Your task to perform on an android device: open chrome privacy settings Image 0: 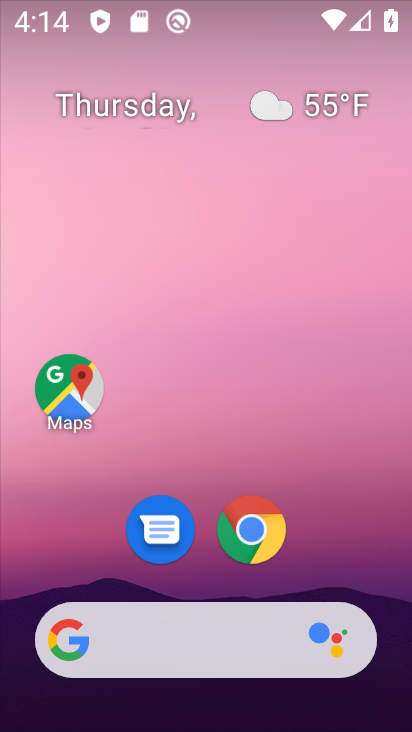
Step 0: click (235, 534)
Your task to perform on an android device: open chrome privacy settings Image 1: 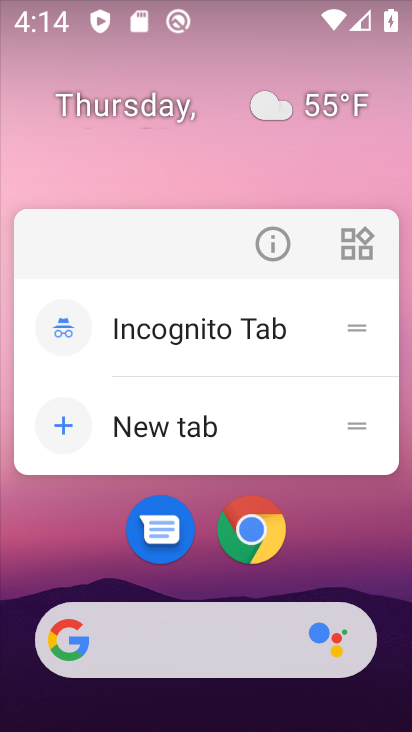
Step 1: click (244, 533)
Your task to perform on an android device: open chrome privacy settings Image 2: 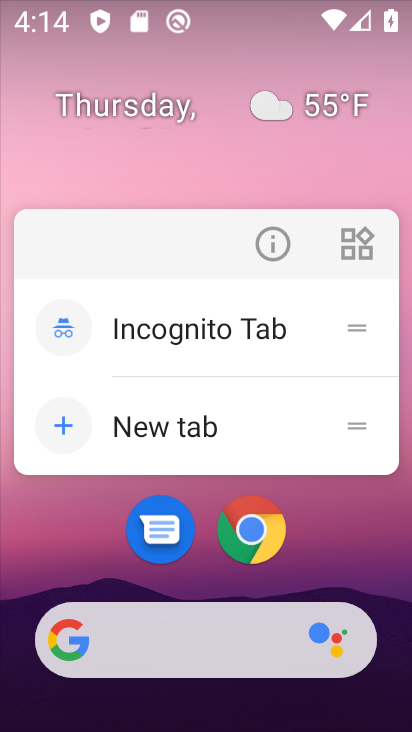
Step 2: click (251, 541)
Your task to perform on an android device: open chrome privacy settings Image 3: 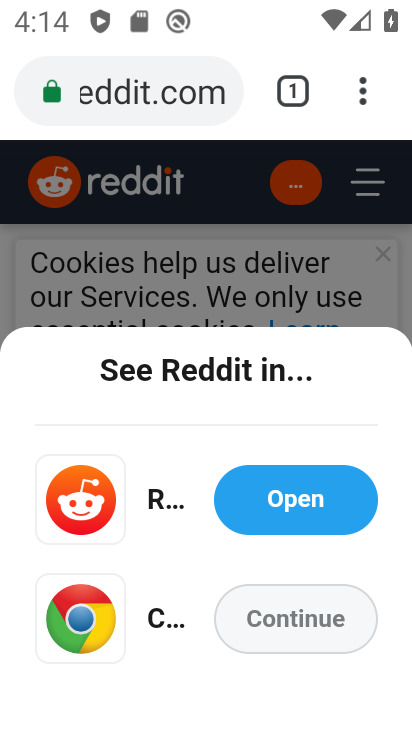
Step 3: click (302, 103)
Your task to perform on an android device: open chrome privacy settings Image 4: 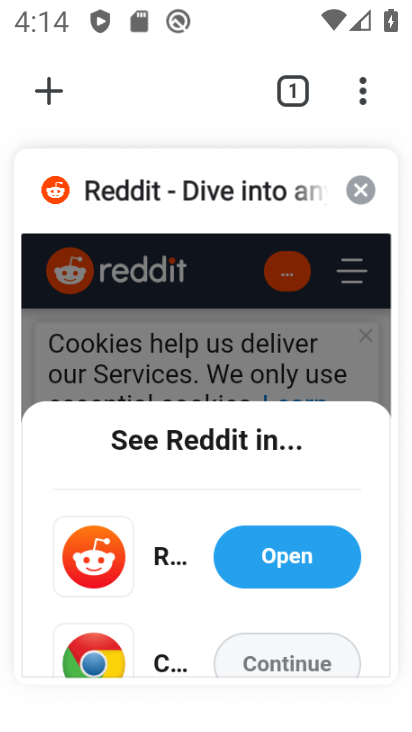
Step 4: click (364, 188)
Your task to perform on an android device: open chrome privacy settings Image 5: 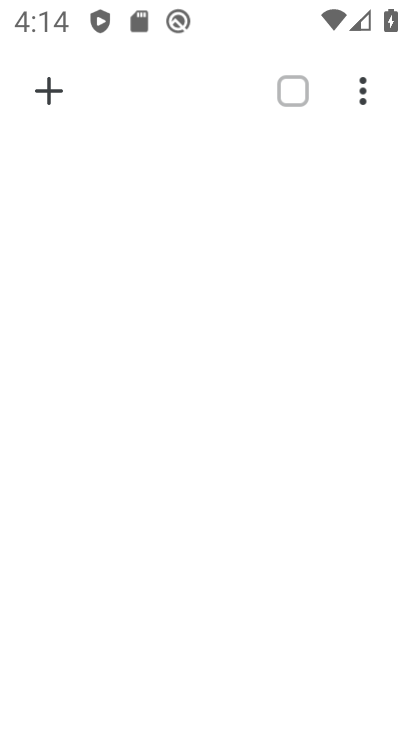
Step 5: click (46, 88)
Your task to perform on an android device: open chrome privacy settings Image 6: 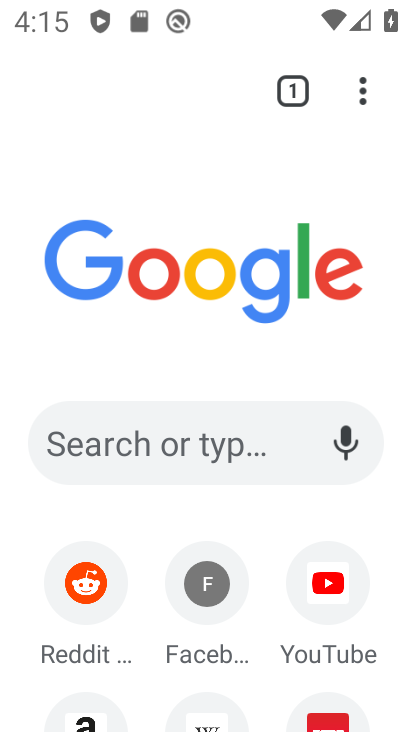
Step 6: click (366, 86)
Your task to perform on an android device: open chrome privacy settings Image 7: 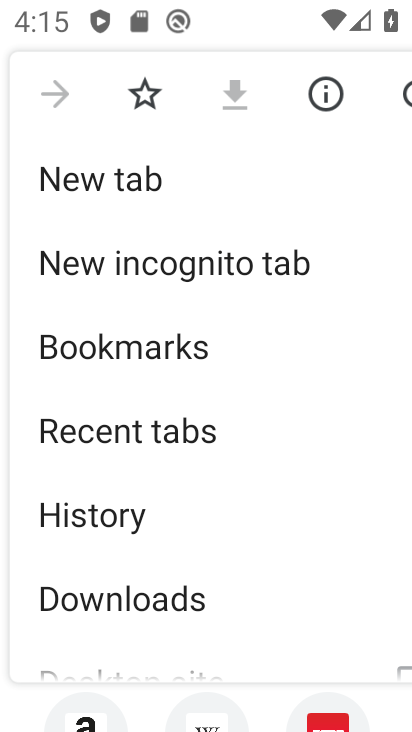
Step 7: drag from (121, 559) to (172, 297)
Your task to perform on an android device: open chrome privacy settings Image 8: 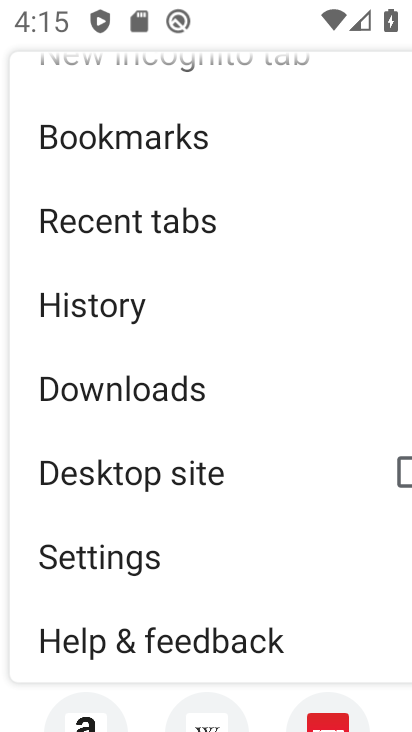
Step 8: click (114, 550)
Your task to perform on an android device: open chrome privacy settings Image 9: 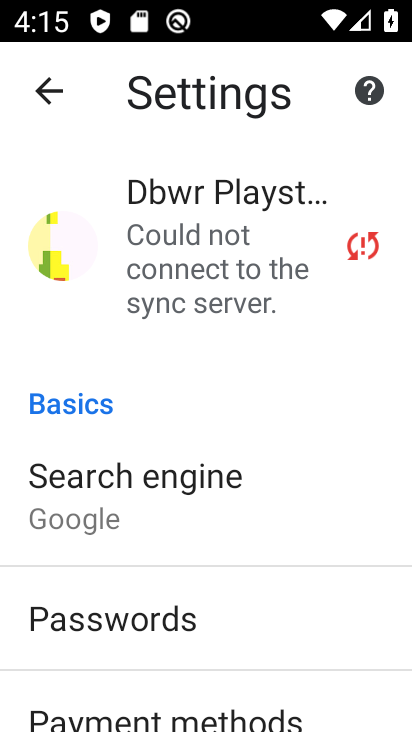
Step 9: drag from (188, 699) to (228, 262)
Your task to perform on an android device: open chrome privacy settings Image 10: 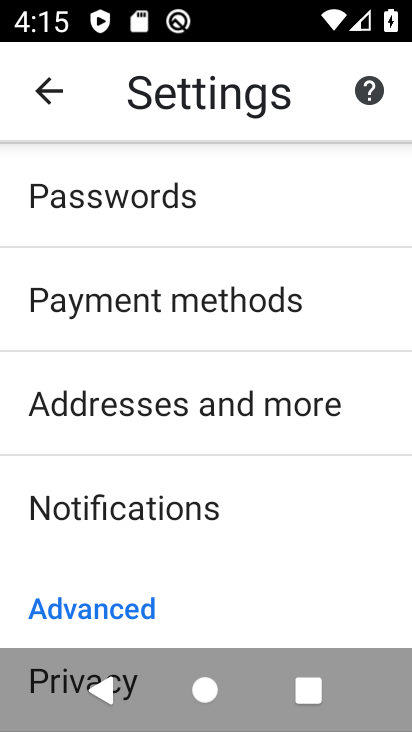
Step 10: drag from (198, 585) to (228, 274)
Your task to perform on an android device: open chrome privacy settings Image 11: 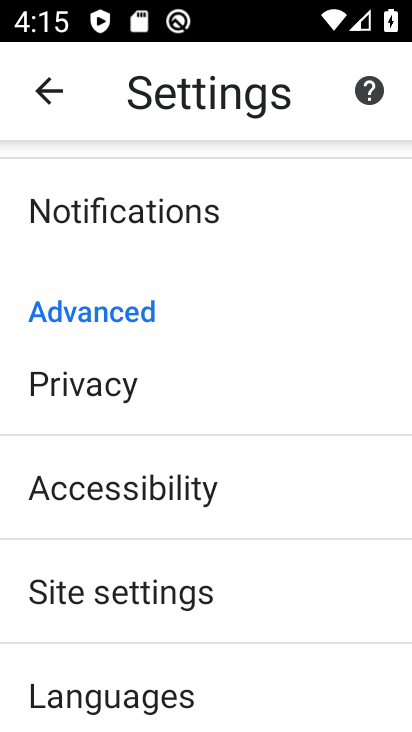
Step 11: click (85, 378)
Your task to perform on an android device: open chrome privacy settings Image 12: 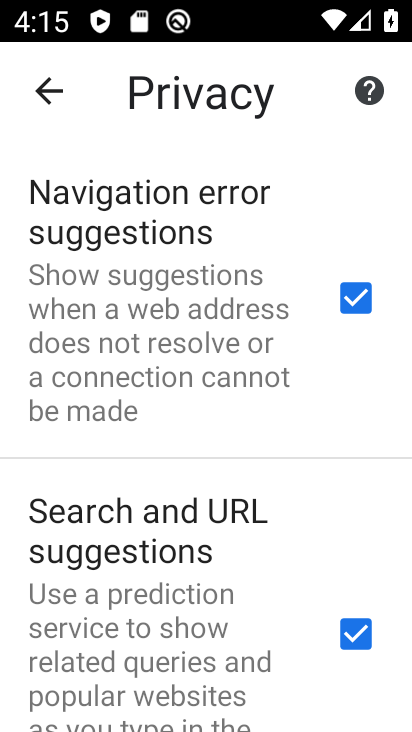
Step 12: click (201, 246)
Your task to perform on an android device: open chrome privacy settings Image 13: 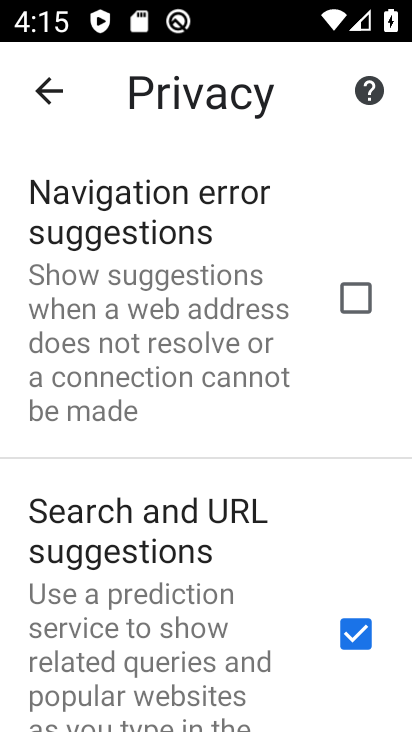
Step 13: click (350, 297)
Your task to perform on an android device: open chrome privacy settings Image 14: 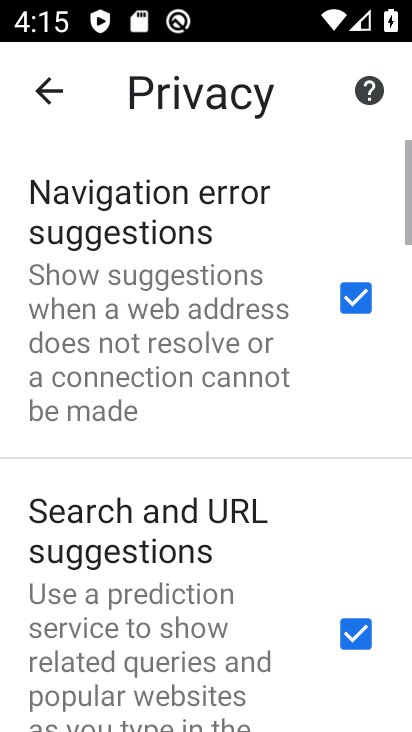
Step 14: task complete